Your task to perform on an android device: Search for sushi restaurants on Maps Image 0: 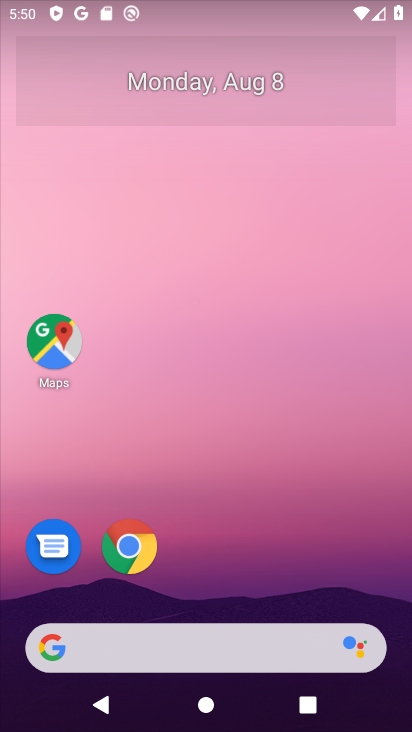
Step 0: click (33, 332)
Your task to perform on an android device: Search for sushi restaurants on Maps Image 1: 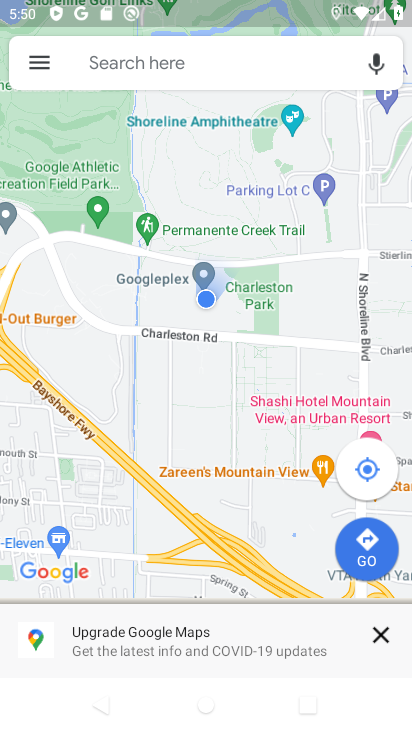
Step 1: click (223, 77)
Your task to perform on an android device: Search for sushi restaurants on Maps Image 2: 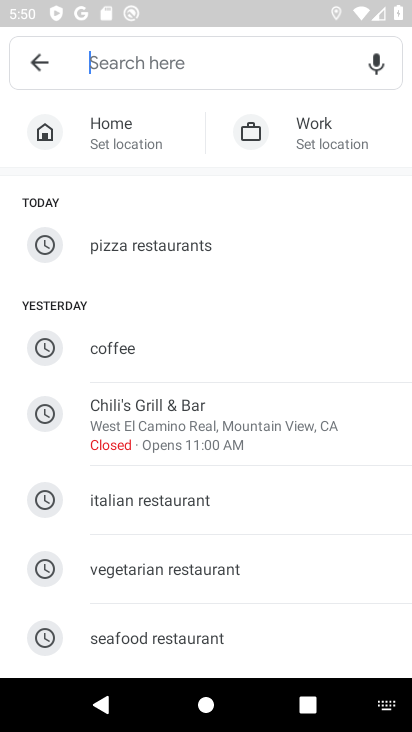
Step 2: type "sushi restaurants"
Your task to perform on an android device: Search for sushi restaurants on Maps Image 3: 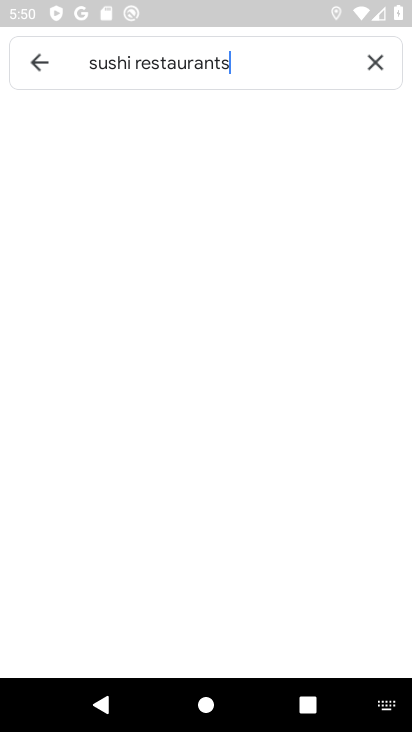
Step 3: type ""
Your task to perform on an android device: Search for sushi restaurants on Maps Image 4: 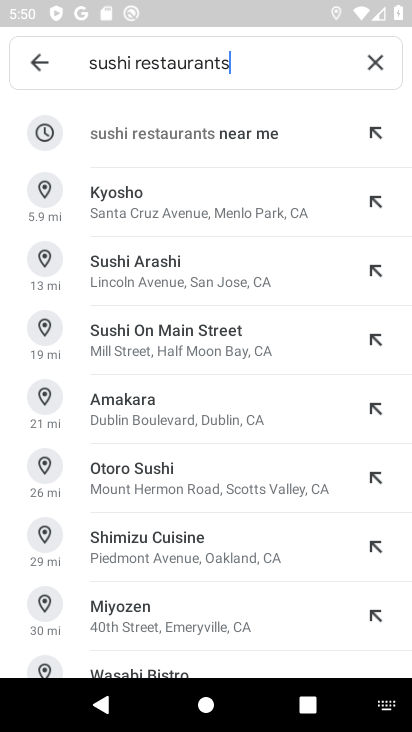
Step 4: click (195, 135)
Your task to perform on an android device: Search for sushi restaurants on Maps Image 5: 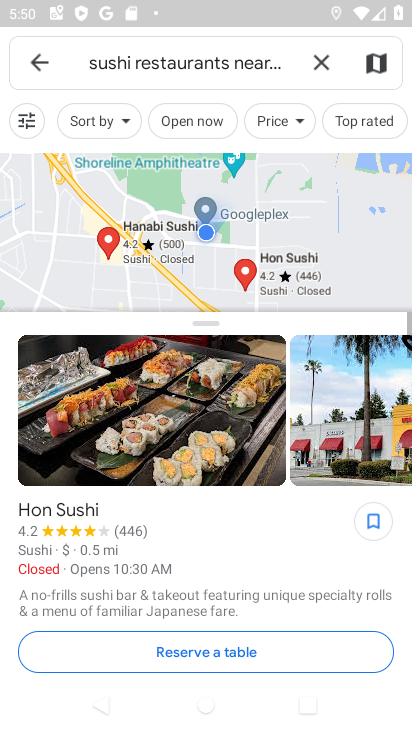
Step 5: task complete